Your task to perform on an android device: Open eBay Image 0: 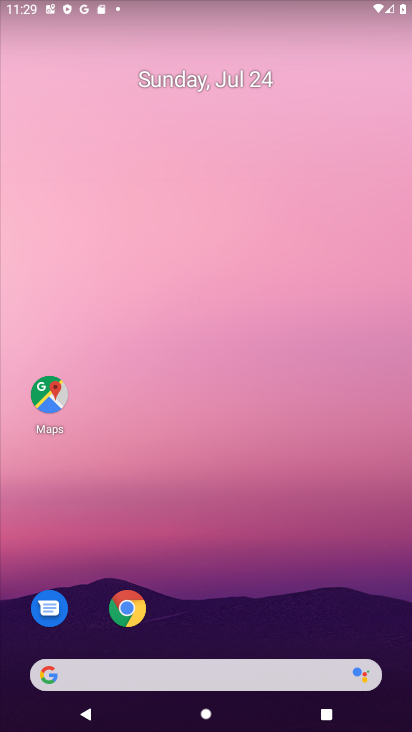
Step 0: drag from (257, 565) to (168, 188)
Your task to perform on an android device: Open eBay Image 1: 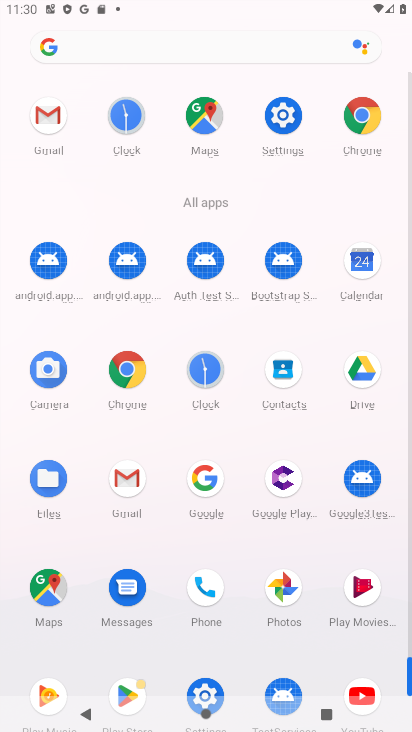
Step 1: click (353, 128)
Your task to perform on an android device: Open eBay Image 2: 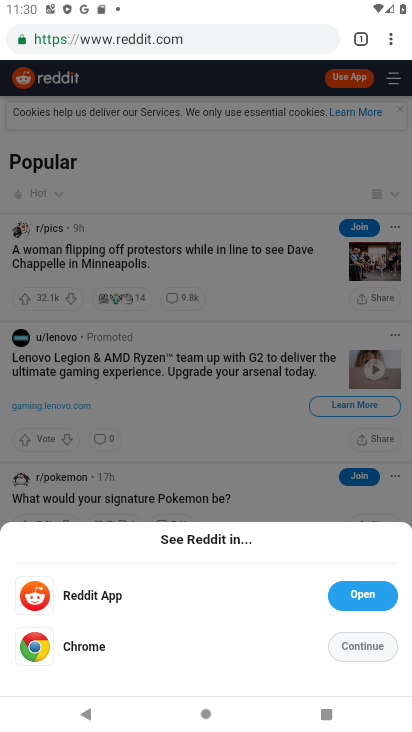
Step 2: click (191, 39)
Your task to perform on an android device: Open eBay Image 3: 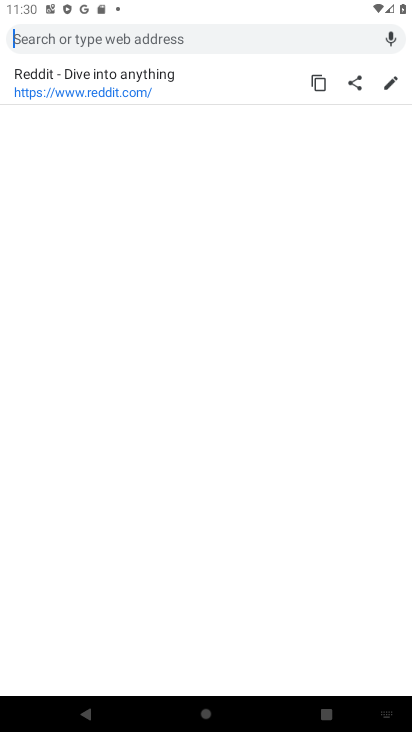
Step 3: press back button
Your task to perform on an android device: Open eBay Image 4: 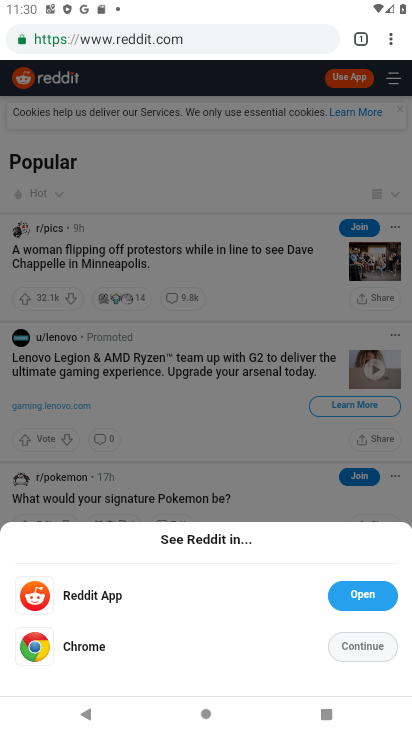
Step 4: press back button
Your task to perform on an android device: Open eBay Image 5: 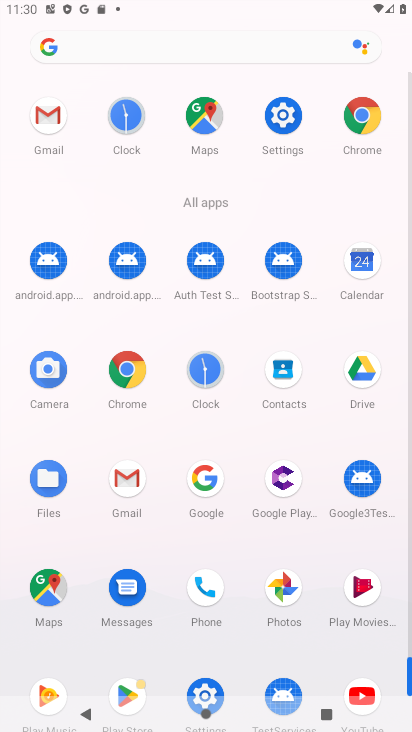
Step 5: click (360, 119)
Your task to perform on an android device: Open eBay Image 6: 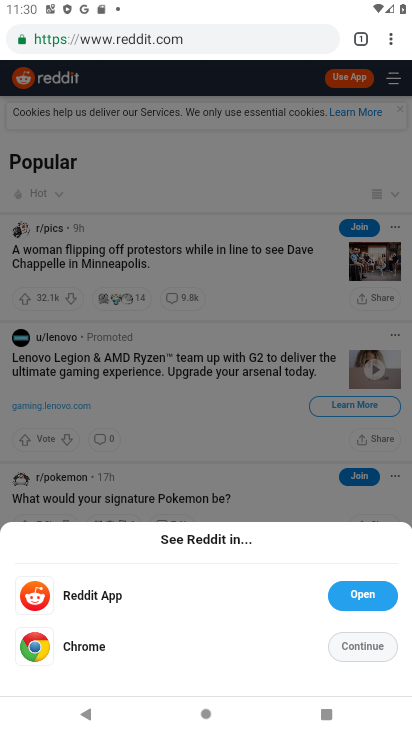
Step 6: click (250, 43)
Your task to perform on an android device: Open eBay Image 7: 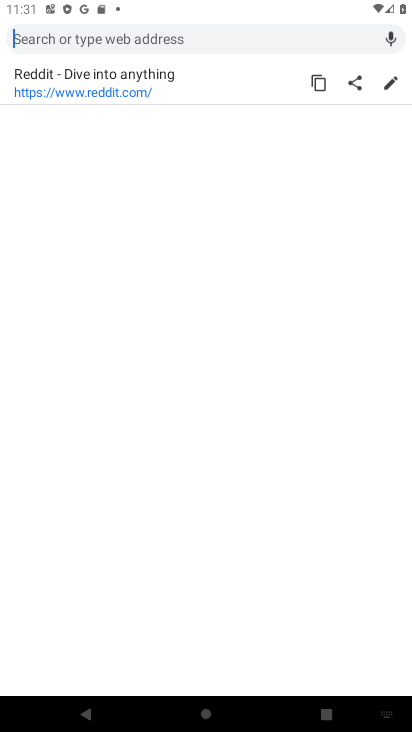
Step 7: type "eBay"
Your task to perform on an android device: Open eBay Image 8: 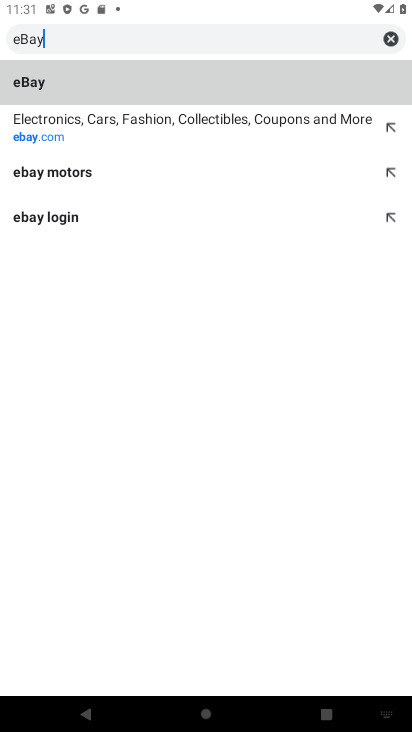
Step 8: click (27, 132)
Your task to perform on an android device: Open eBay Image 9: 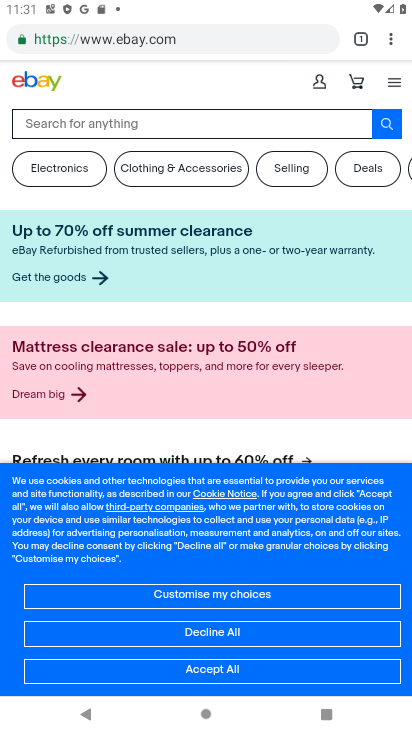
Step 9: task complete